Your task to perform on an android device: turn off notifications in google photos Image 0: 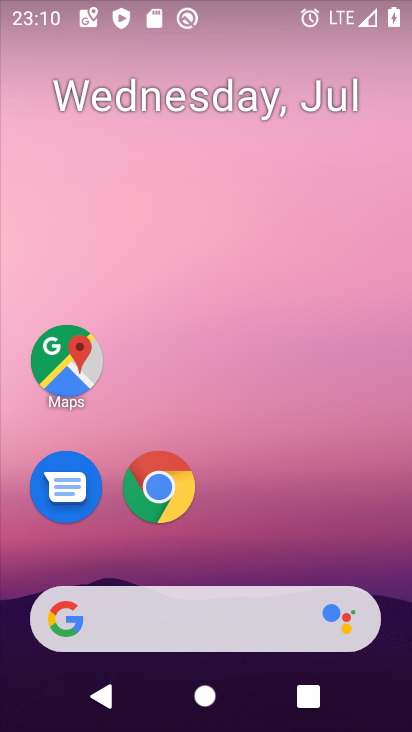
Step 0: drag from (239, 589) to (306, 167)
Your task to perform on an android device: turn off notifications in google photos Image 1: 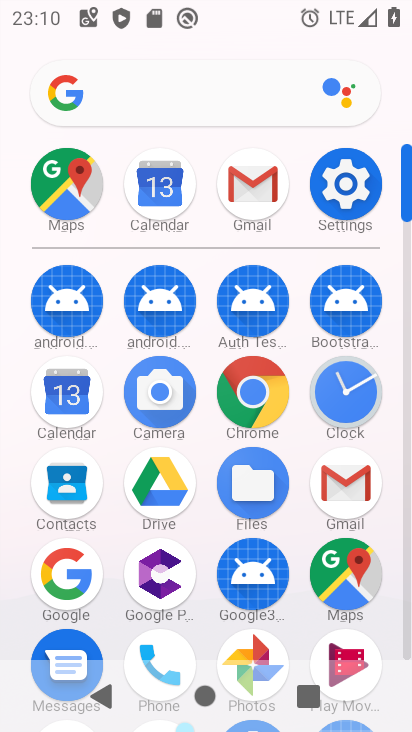
Step 1: click (249, 645)
Your task to perform on an android device: turn off notifications in google photos Image 2: 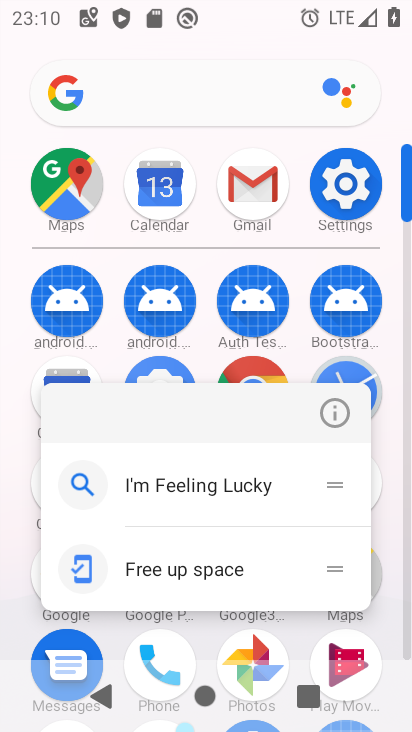
Step 2: click (335, 408)
Your task to perform on an android device: turn off notifications in google photos Image 3: 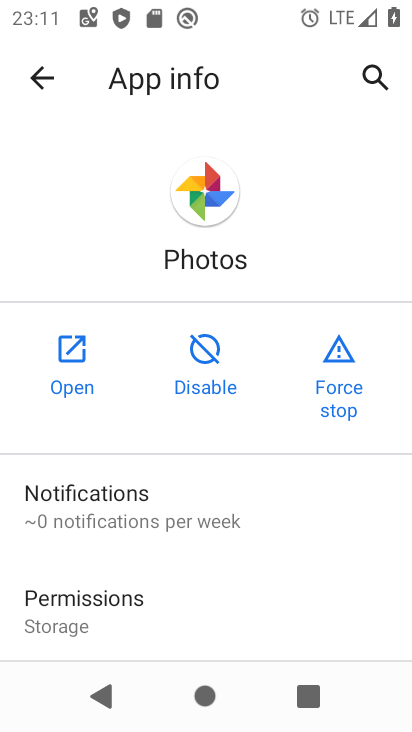
Step 3: click (236, 505)
Your task to perform on an android device: turn off notifications in google photos Image 4: 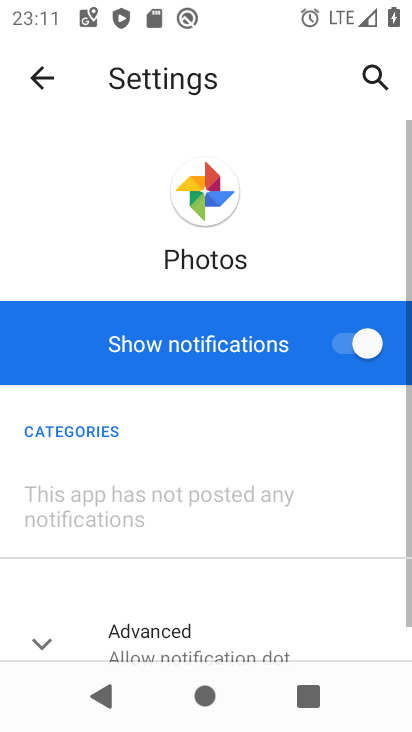
Step 4: click (370, 323)
Your task to perform on an android device: turn off notifications in google photos Image 5: 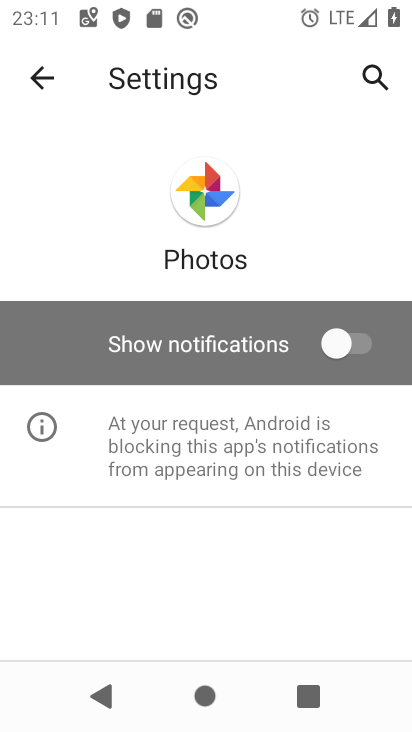
Step 5: task complete